Your task to perform on an android device: Open maps Image 0: 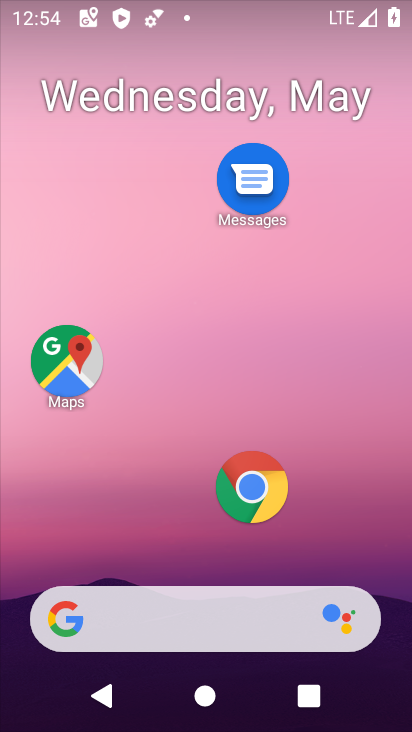
Step 0: click (61, 374)
Your task to perform on an android device: Open maps Image 1: 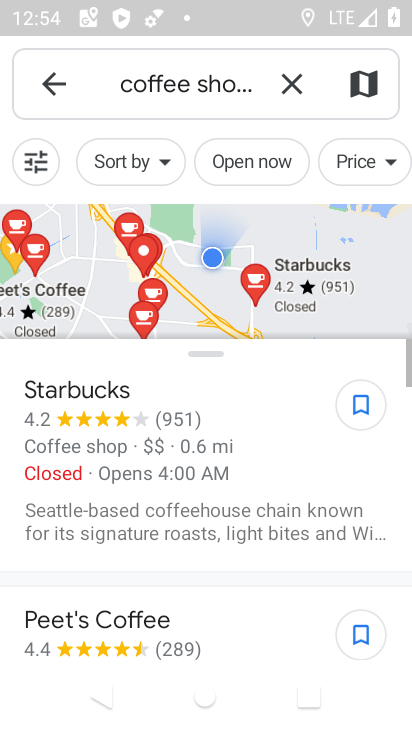
Step 1: click (42, 82)
Your task to perform on an android device: Open maps Image 2: 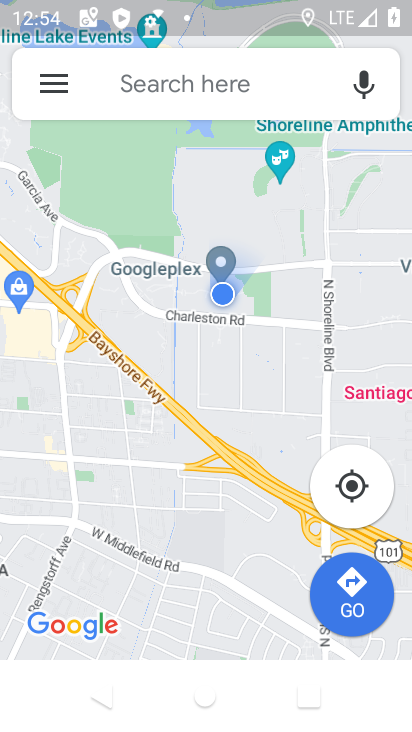
Step 2: task complete